Your task to perform on an android device: Open accessibility settings Image 0: 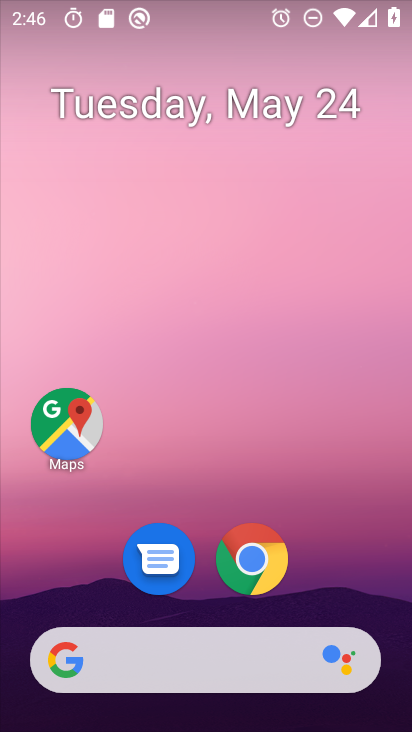
Step 0: drag from (390, 720) to (342, 240)
Your task to perform on an android device: Open accessibility settings Image 1: 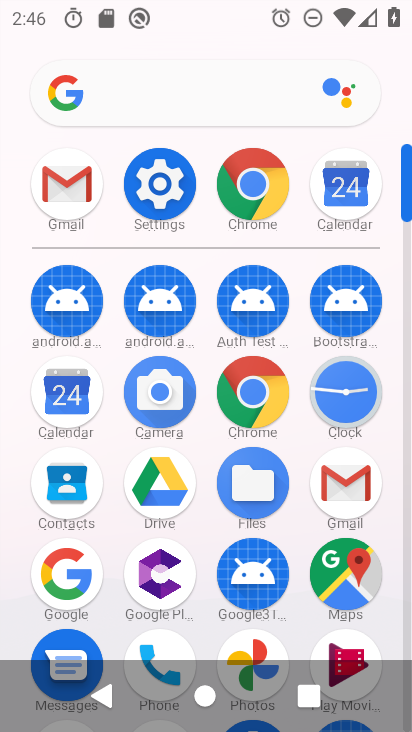
Step 1: click (142, 201)
Your task to perform on an android device: Open accessibility settings Image 2: 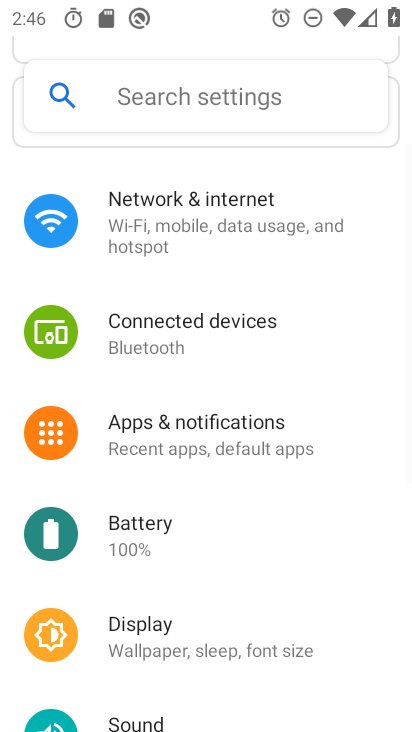
Step 2: drag from (340, 688) to (302, 183)
Your task to perform on an android device: Open accessibility settings Image 3: 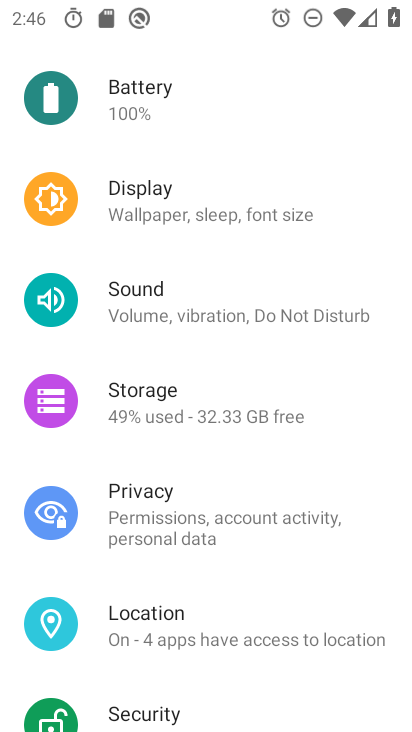
Step 3: drag from (345, 707) to (279, 230)
Your task to perform on an android device: Open accessibility settings Image 4: 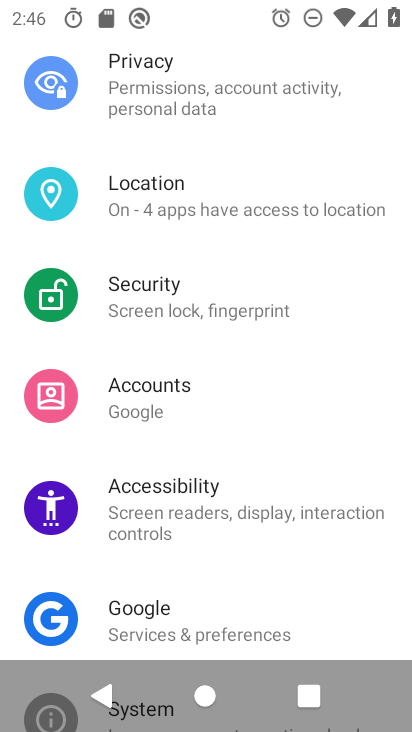
Step 4: drag from (319, 611) to (294, 186)
Your task to perform on an android device: Open accessibility settings Image 5: 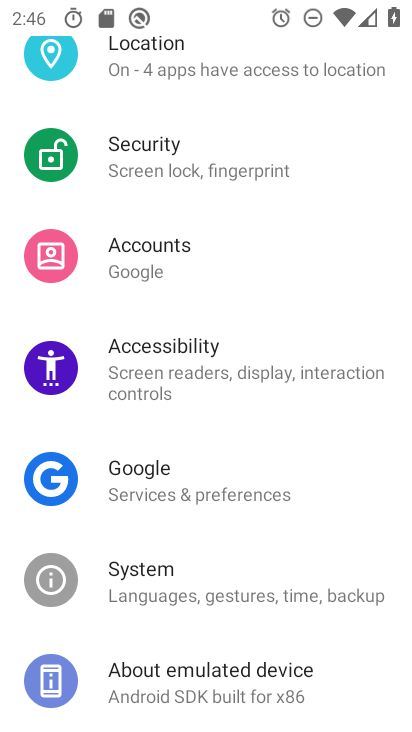
Step 5: click (133, 354)
Your task to perform on an android device: Open accessibility settings Image 6: 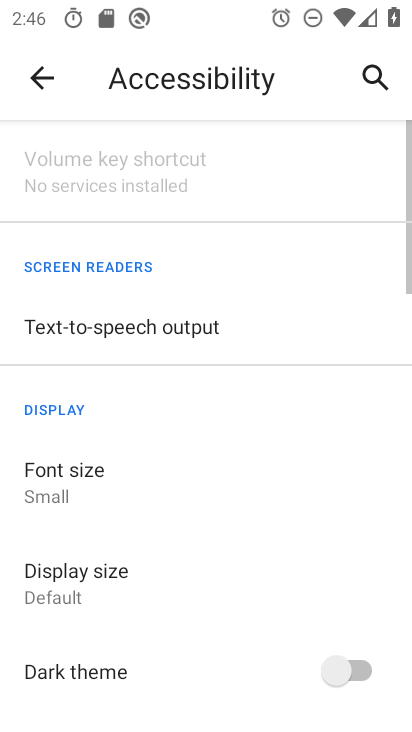
Step 6: task complete